Your task to perform on an android device: Open privacy settings Image 0: 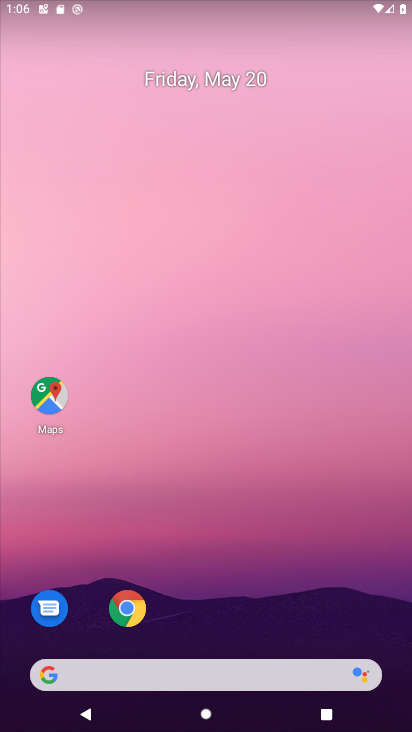
Step 0: click (142, 606)
Your task to perform on an android device: Open privacy settings Image 1: 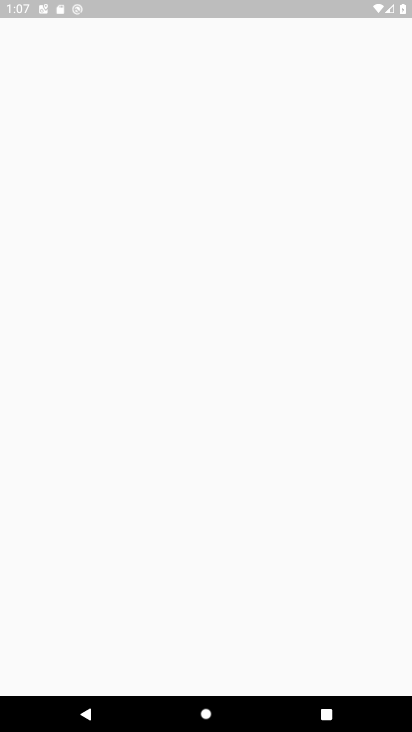
Step 1: press home button
Your task to perform on an android device: Open privacy settings Image 2: 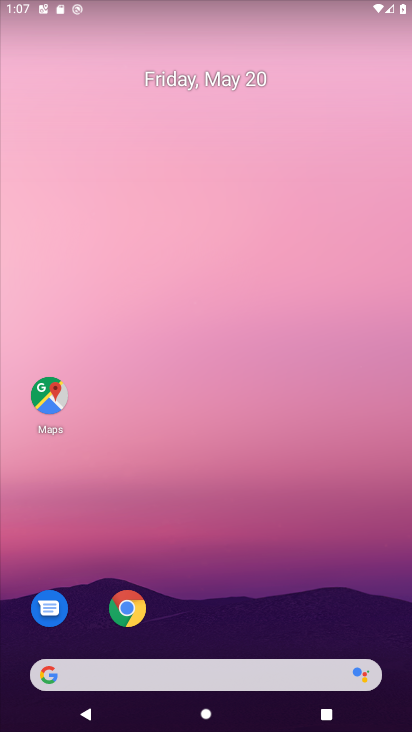
Step 2: drag from (280, 620) to (320, 136)
Your task to perform on an android device: Open privacy settings Image 3: 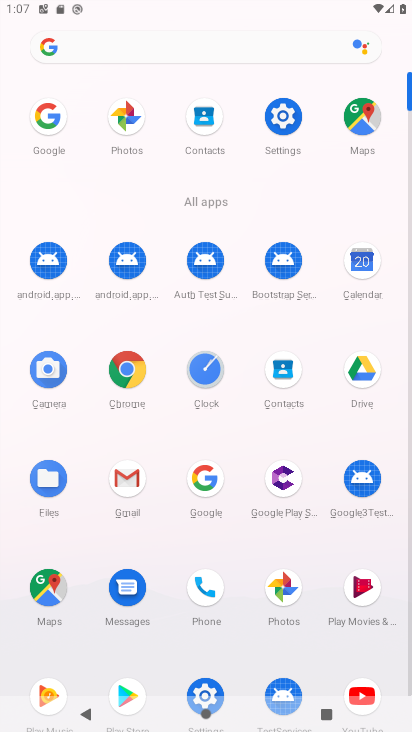
Step 3: click (287, 117)
Your task to perform on an android device: Open privacy settings Image 4: 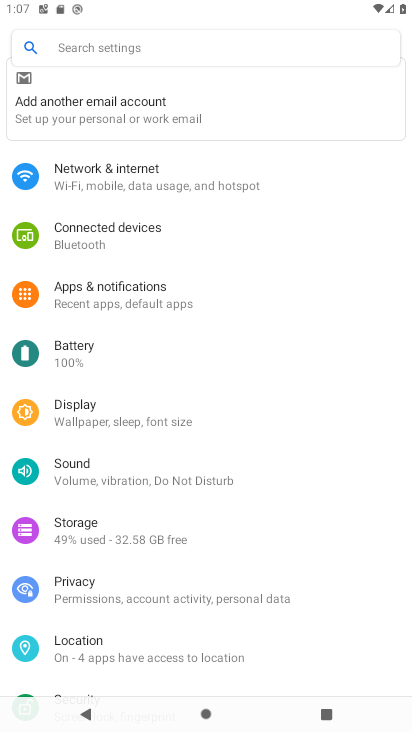
Step 4: click (99, 580)
Your task to perform on an android device: Open privacy settings Image 5: 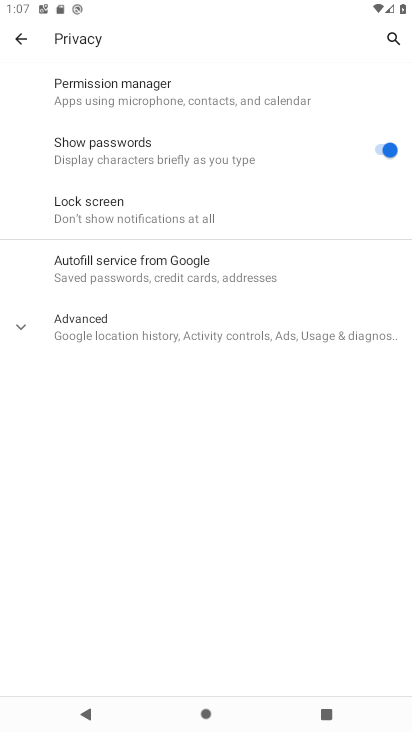
Step 5: task complete